Your task to perform on an android device: Open Amazon Image 0: 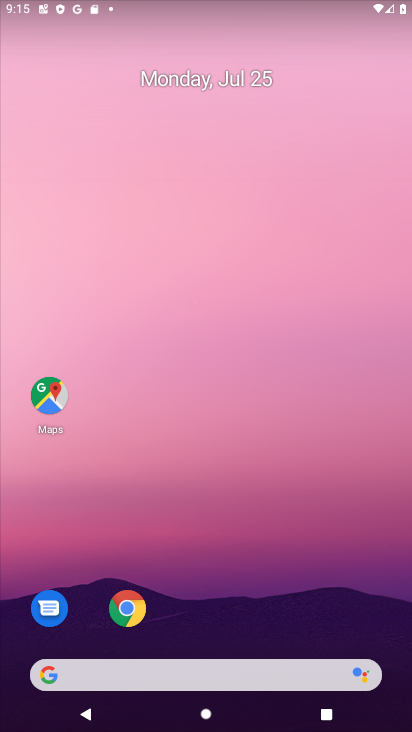
Step 0: click (128, 619)
Your task to perform on an android device: Open Amazon Image 1: 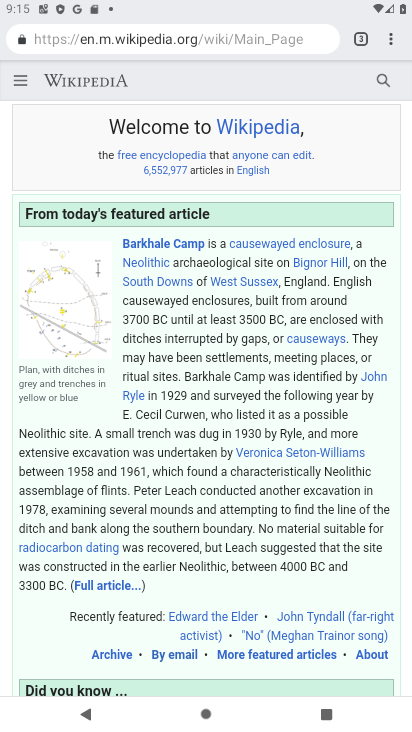
Step 1: click (393, 33)
Your task to perform on an android device: Open Amazon Image 2: 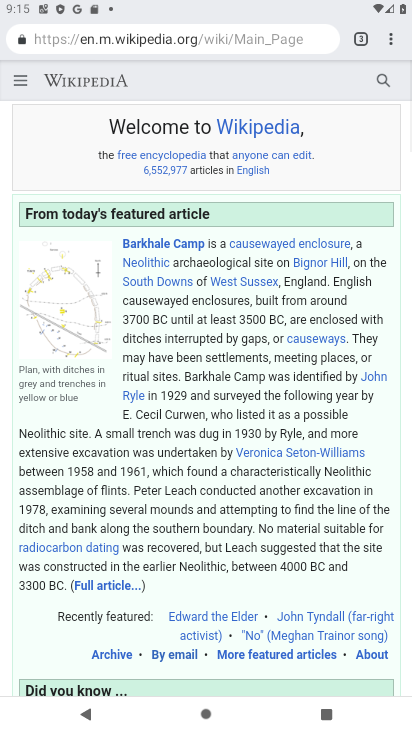
Step 2: click (399, 41)
Your task to perform on an android device: Open Amazon Image 3: 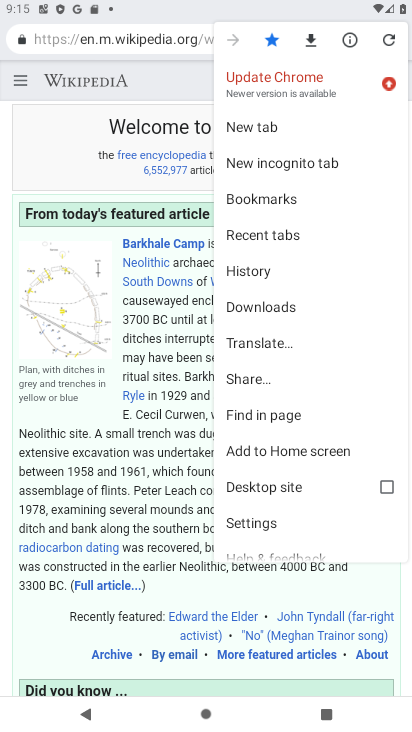
Step 3: click (264, 119)
Your task to perform on an android device: Open Amazon Image 4: 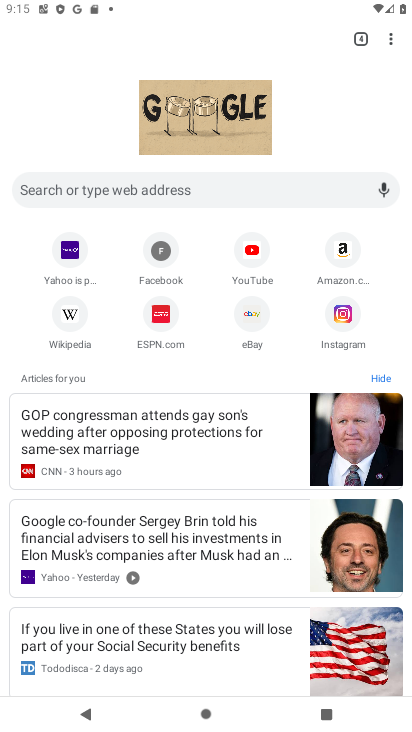
Step 4: click (357, 241)
Your task to perform on an android device: Open Amazon Image 5: 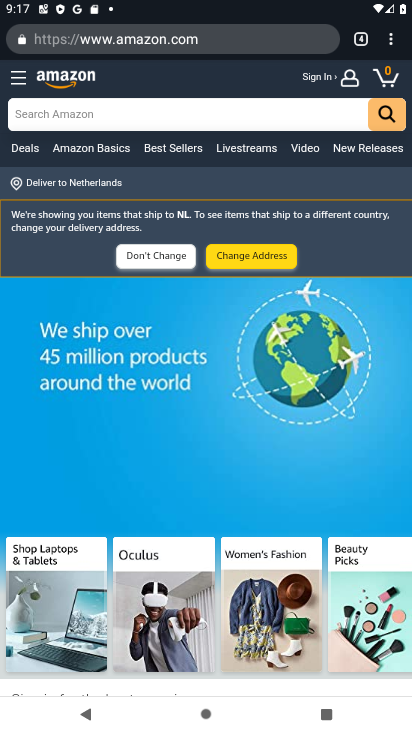
Step 5: task complete